Your task to perform on an android device: open app "Speedtest by Ookla" (install if not already installed), go to login, and select forgot password Image 0: 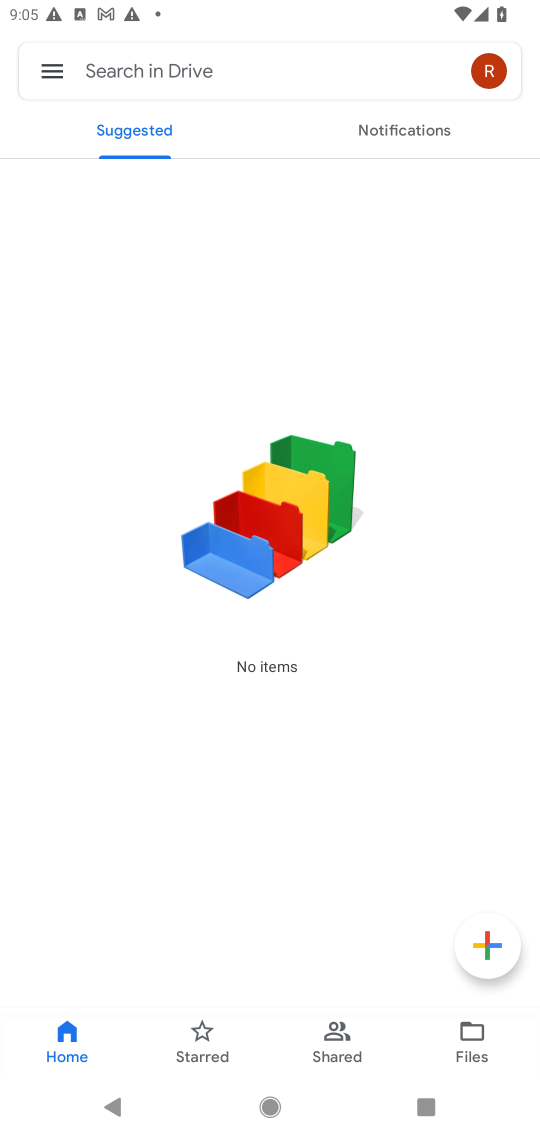
Step 0: press home button
Your task to perform on an android device: open app "Speedtest by Ookla" (install if not already installed), go to login, and select forgot password Image 1: 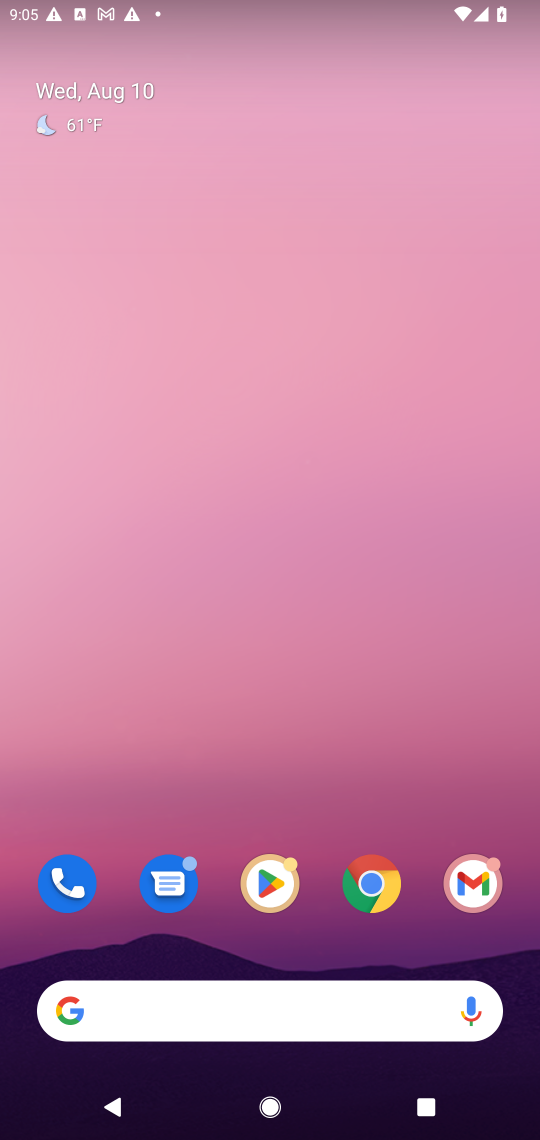
Step 1: click (271, 879)
Your task to perform on an android device: open app "Speedtest by Ookla" (install if not already installed), go to login, and select forgot password Image 2: 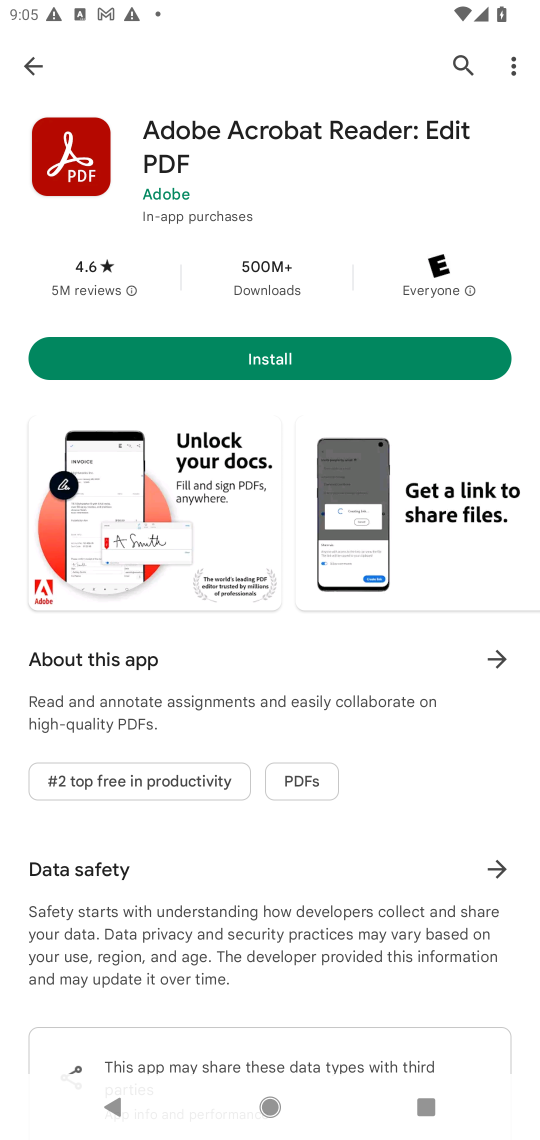
Step 2: click (451, 103)
Your task to perform on an android device: open app "Speedtest by Ookla" (install if not already installed), go to login, and select forgot password Image 3: 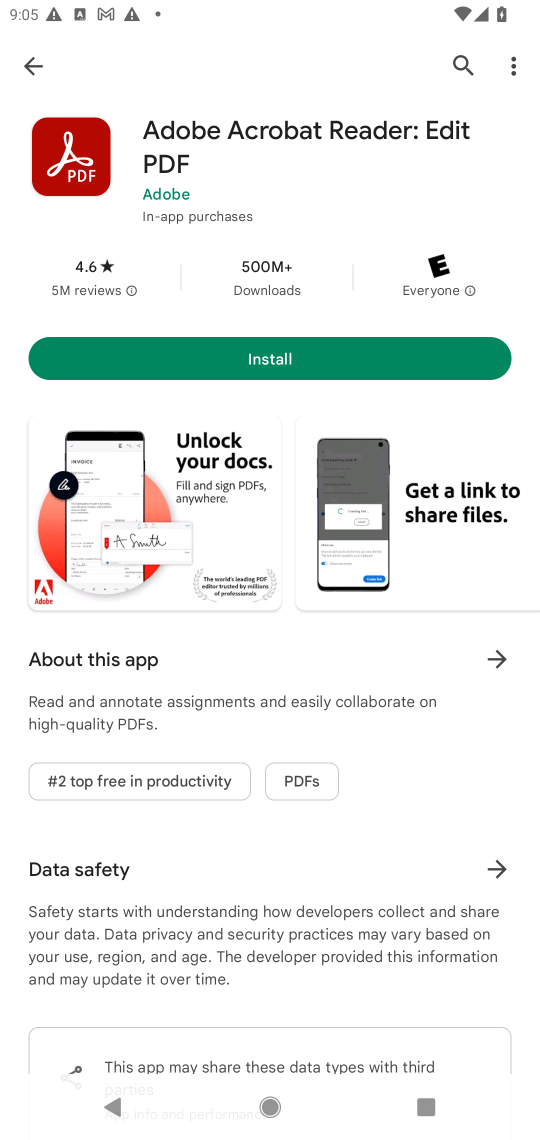
Step 3: click (456, 61)
Your task to perform on an android device: open app "Speedtest by Ookla" (install if not already installed), go to login, and select forgot password Image 4: 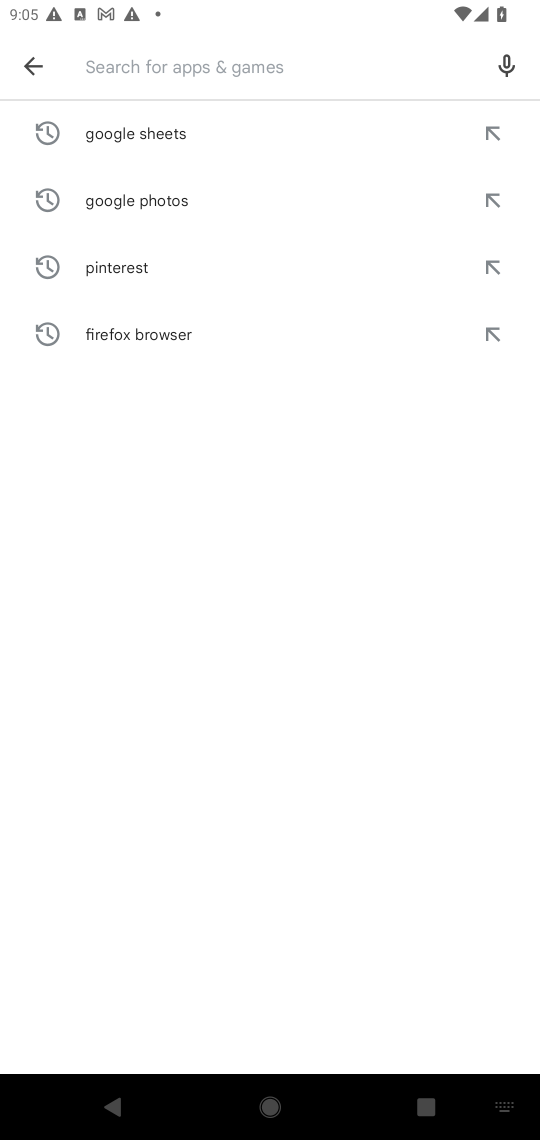
Step 4: type "Speedtest by Ookla"
Your task to perform on an android device: open app "Speedtest by Ookla" (install if not already installed), go to login, and select forgot password Image 5: 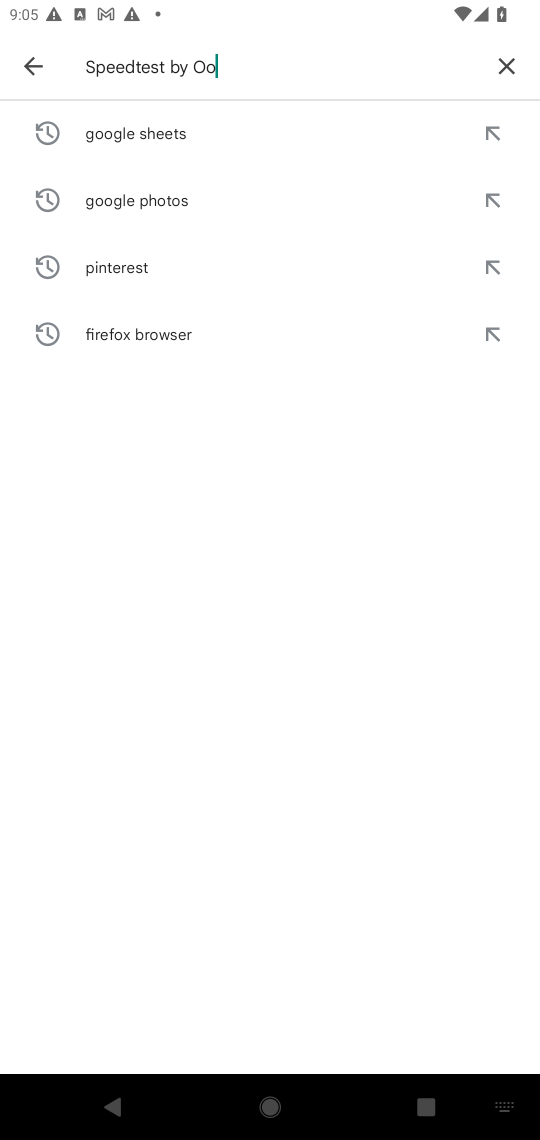
Step 5: type ""
Your task to perform on an android device: open app "Speedtest by Ookla" (install if not already installed), go to login, and select forgot password Image 6: 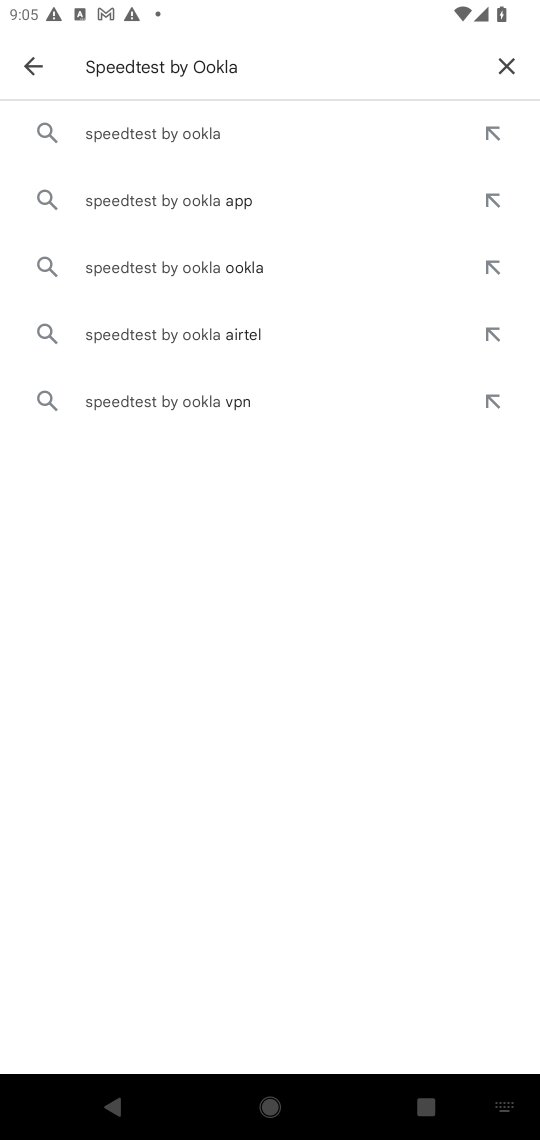
Step 6: click (210, 137)
Your task to perform on an android device: open app "Speedtest by Ookla" (install if not already installed), go to login, and select forgot password Image 7: 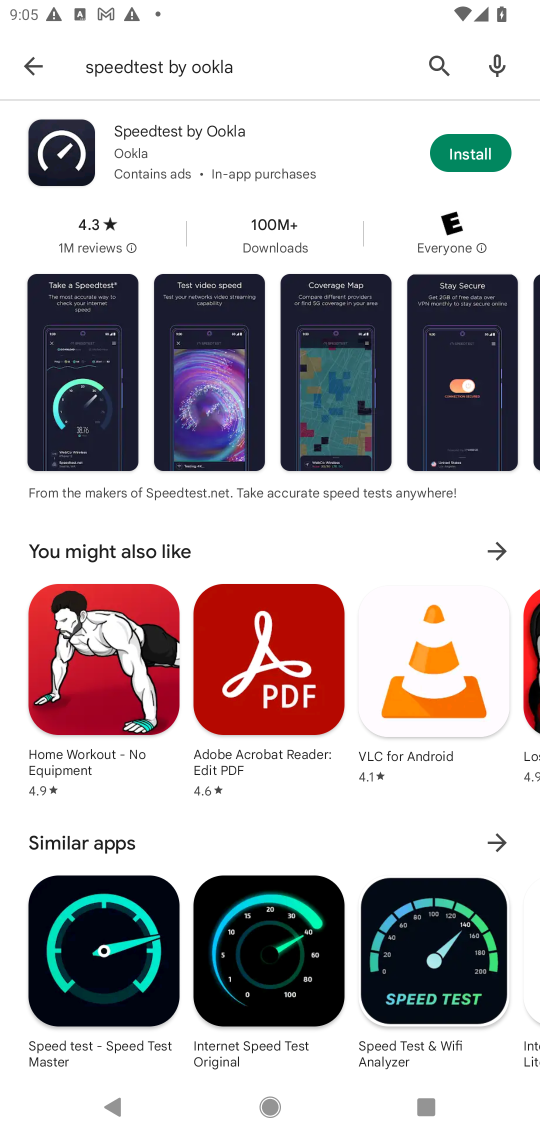
Step 7: click (451, 155)
Your task to perform on an android device: open app "Speedtest by Ookla" (install if not already installed), go to login, and select forgot password Image 8: 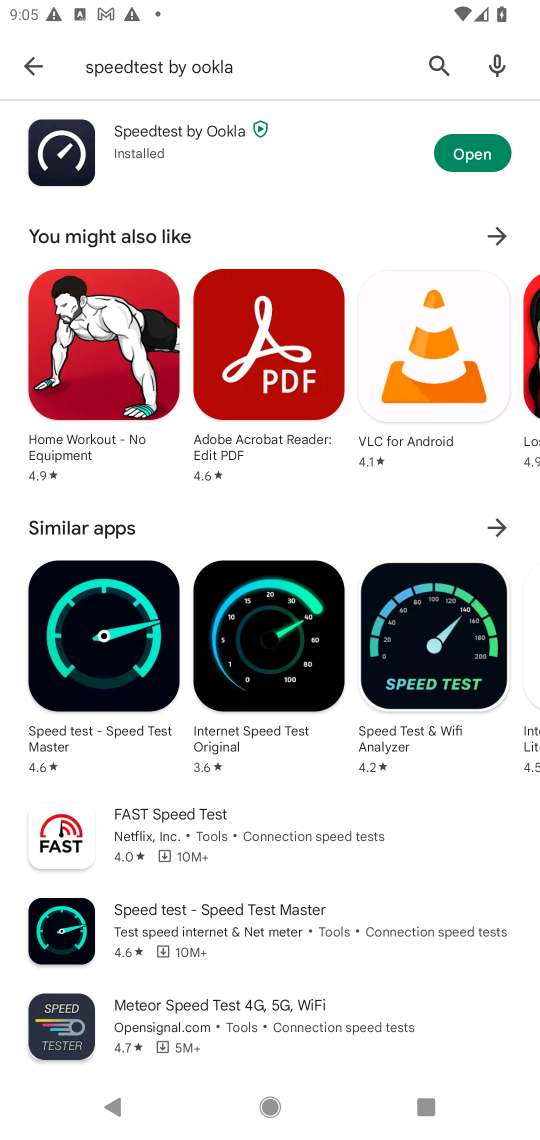
Step 8: click (451, 155)
Your task to perform on an android device: open app "Speedtest by Ookla" (install if not already installed), go to login, and select forgot password Image 9: 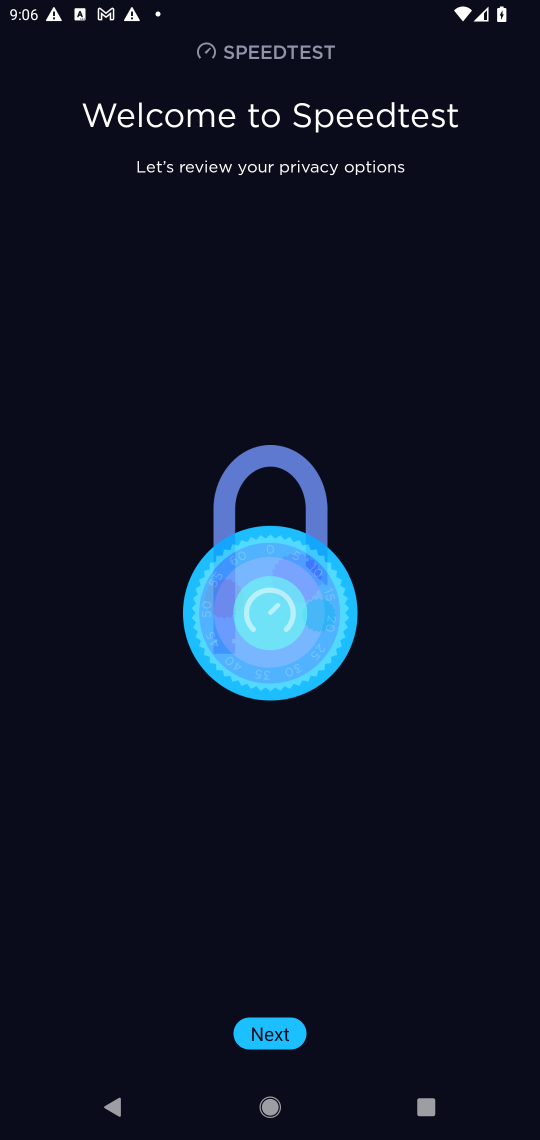
Step 9: task complete